Your task to perform on an android device: Go to Maps Image 0: 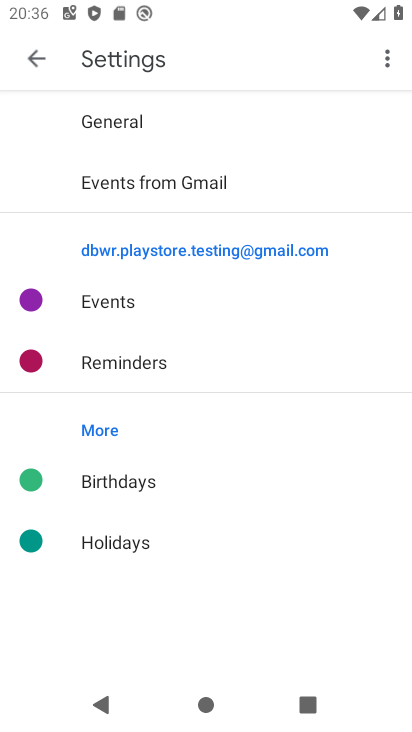
Step 0: press home button
Your task to perform on an android device: Go to Maps Image 1: 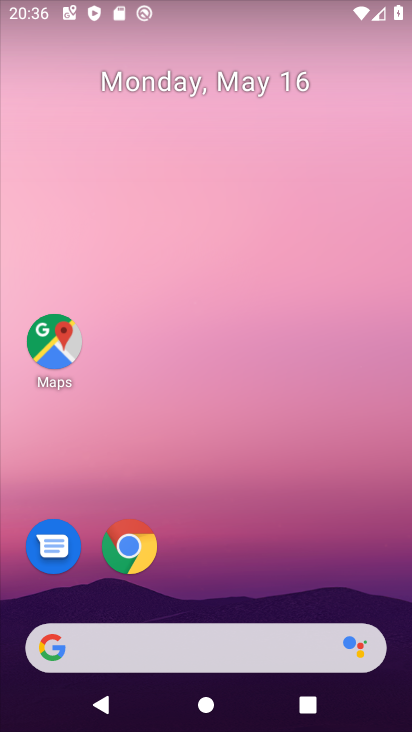
Step 1: click (61, 335)
Your task to perform on an android device: Go to Maps Image 2: 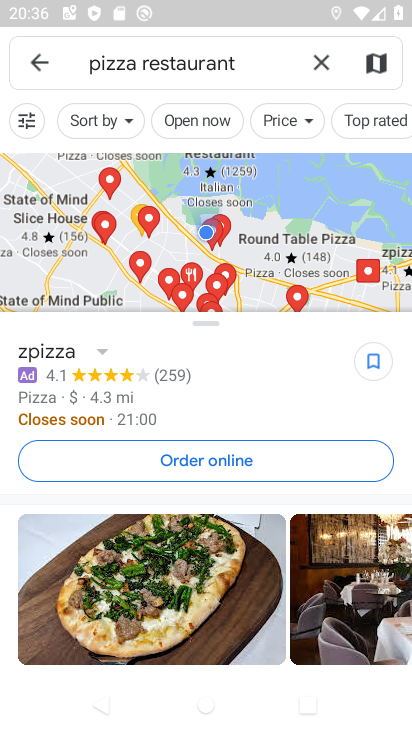
Step 2: task complete